Your task to perform on an android device: Search for "amazon basics triple a" on target, select the first entry, and add it to the cart. Image 0: 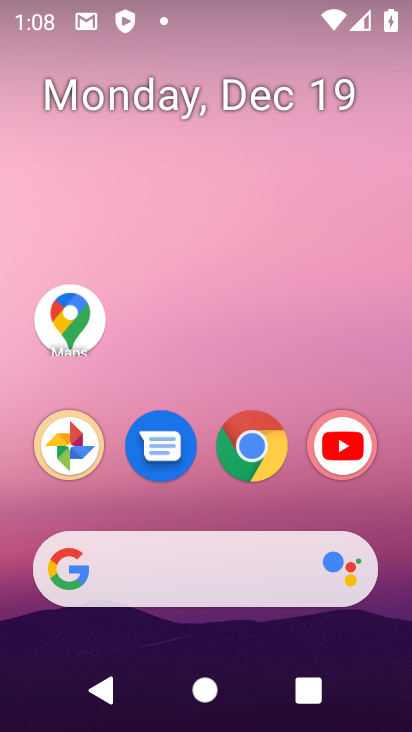
Step 0: click (275, 455)
Your task to perform on an android device: Search for "amazon basics triple a" on target, select the first entry, and add it to the cart. Image 1: 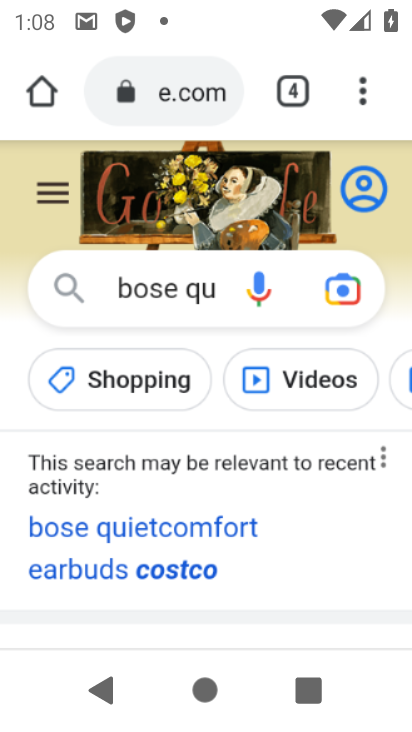
Step 1: click (275, 455)
Your task to perform on an android device: Search for "amazon basics triple a" on target, select the first entry, and add it to the cart. Image 2: 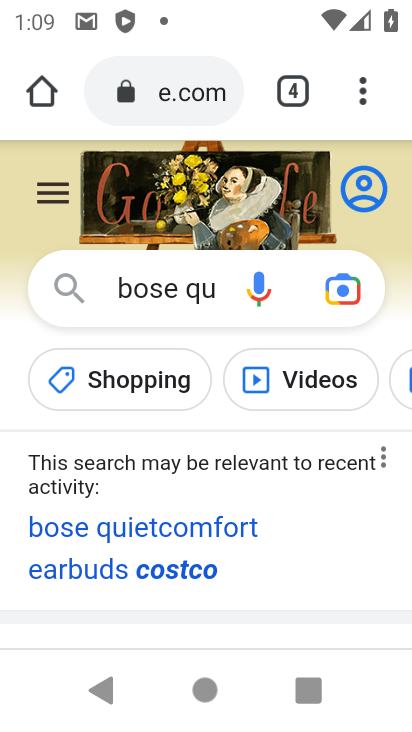
Step 2: task complete